Your task to perform on an android device: Go to Yahoo.com Image 0: 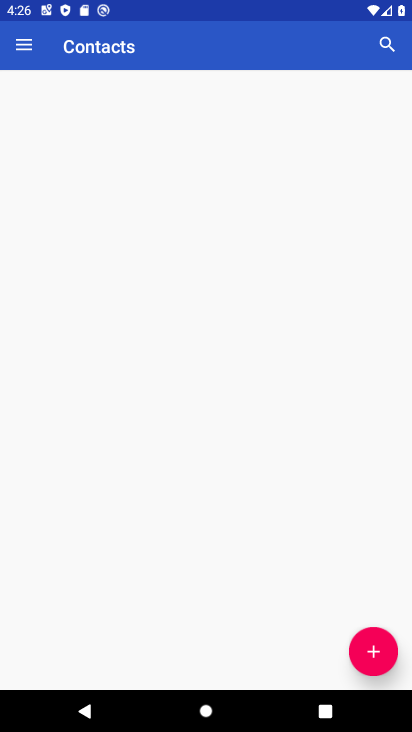
Step 0: click (130, 582)
Your task to perform on an android device: Go to Yahoo.com Image 1: 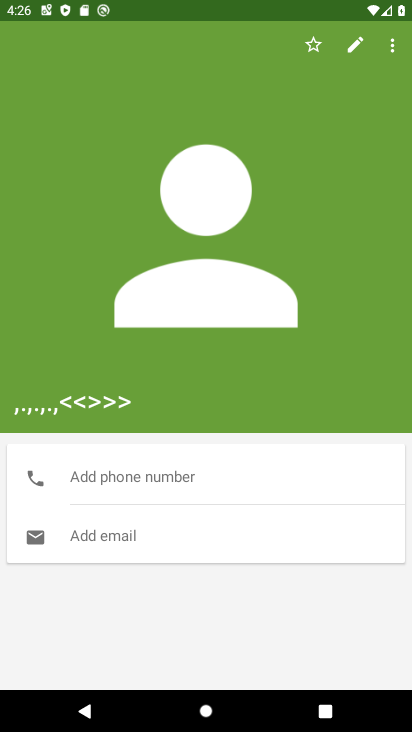
Step 1: press back button
Your task to perform on an android device: Go to Yahoo.com Image 2: 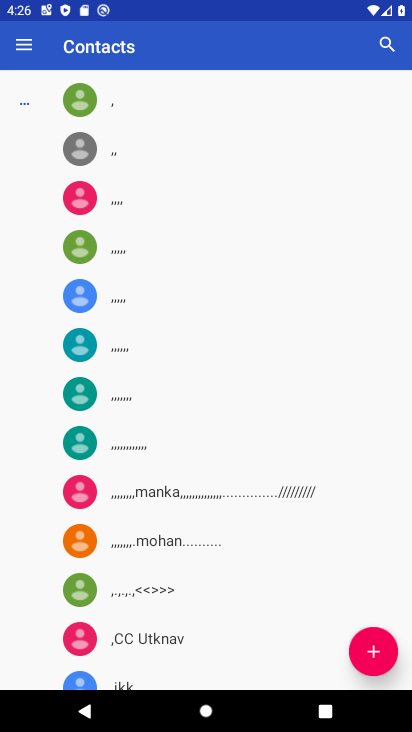
Step 2: press home button
Your task to perform on an android device: Go to Yahoo.com Image 3: 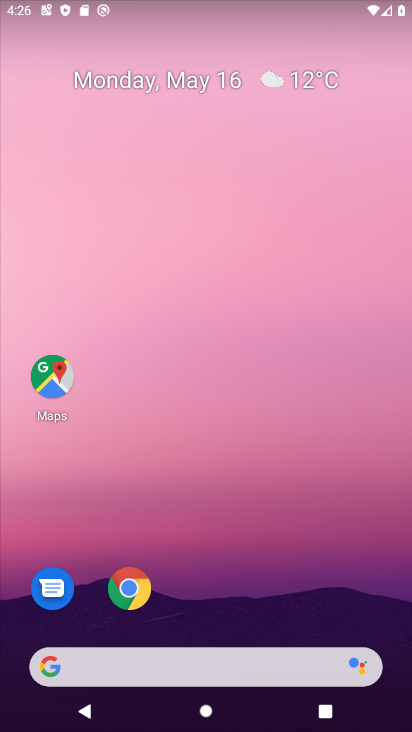
Step 3: click (129, 583)
Your task to perform on an android device: Go to Yahoo.com Image 4: 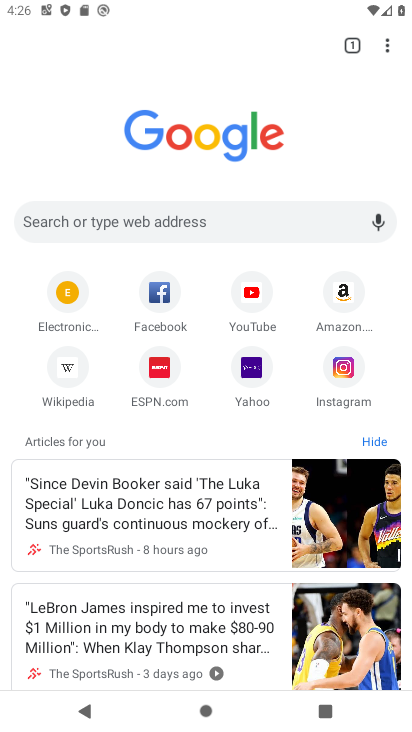
Step 4: click (244, 371)
Your task to perform on an android device: Go to Yahoo.com Image 5: 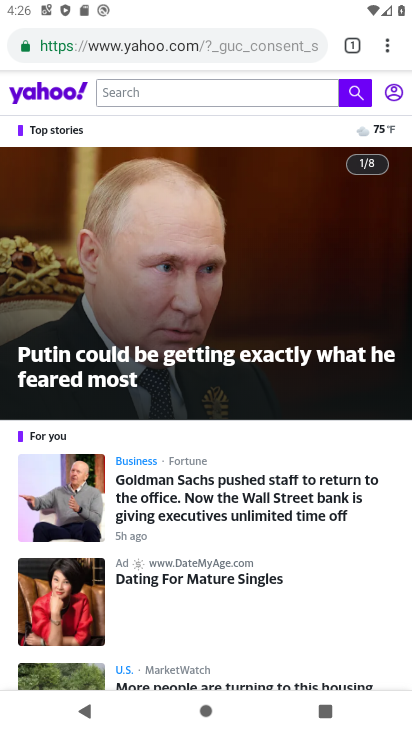
Step 5: task complete